Your task to perform on an android device: see creations saved in the google photos Image 0: 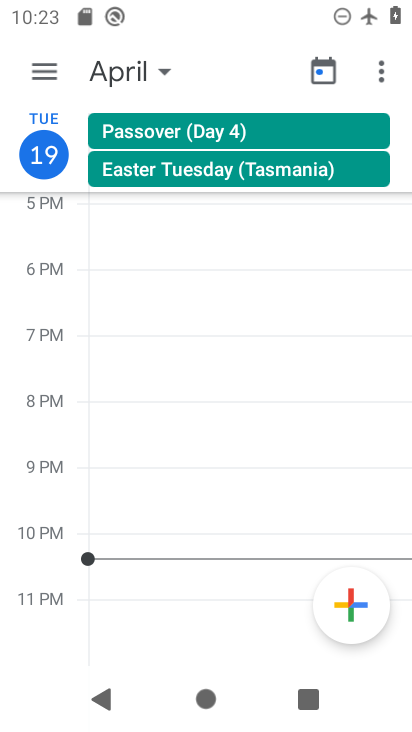
Step 0: press home button
Your task to perform on an android device: see creations saved in the google photos Image 1: 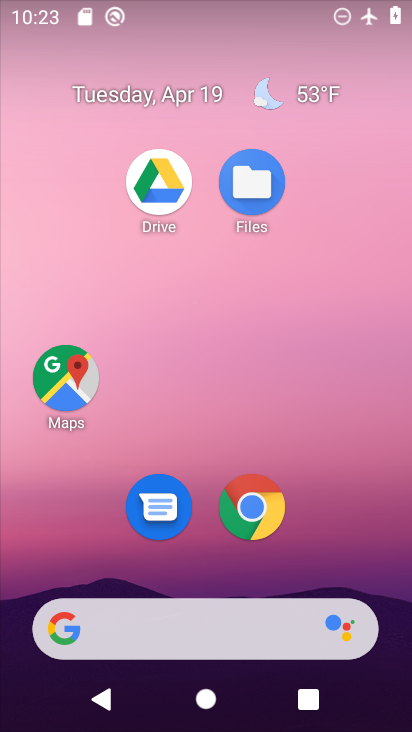
Step 1: drag from (360, 503) to (339, 115)
Your task to perform on an android device: see creations saved in the google photos Image 2: 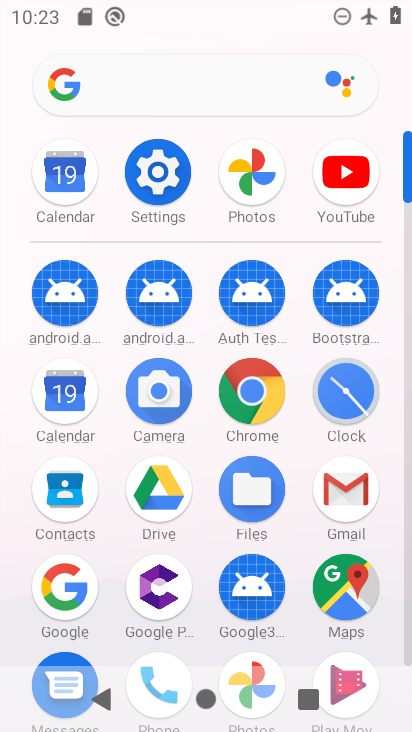
Step 2: click (269, 180)
Your task to perform on an android device: see creations saved in the google photos Image 3: 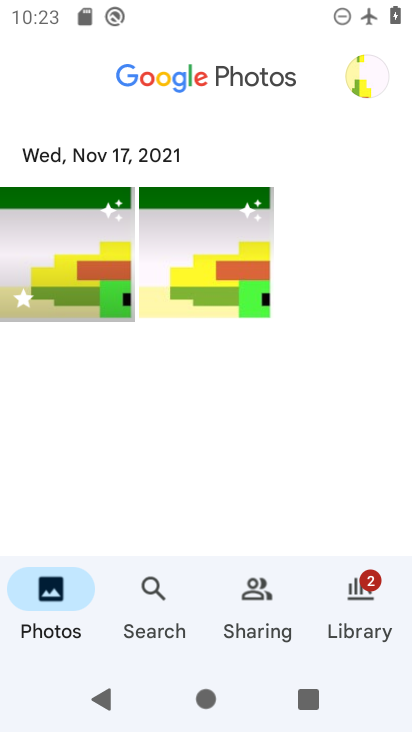
Step 3: click (156, 583)
Your task to perform on an android device: see creations saved in the google photos Image 4: 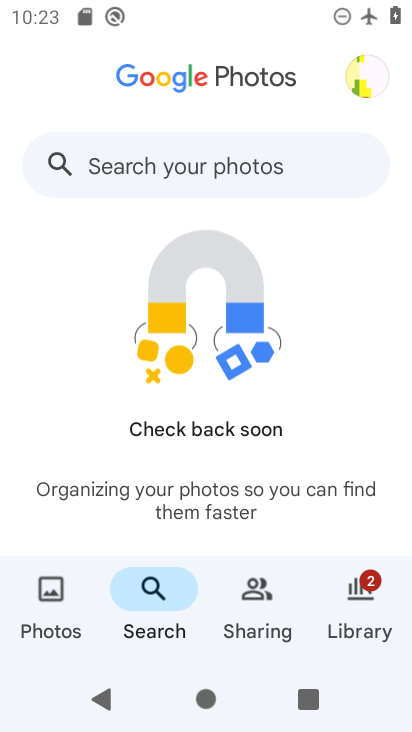
Step 4: drag from (314, 399) to (332, 150)
Your task to perform on an android device: see creations saved in the google photos Image 5: 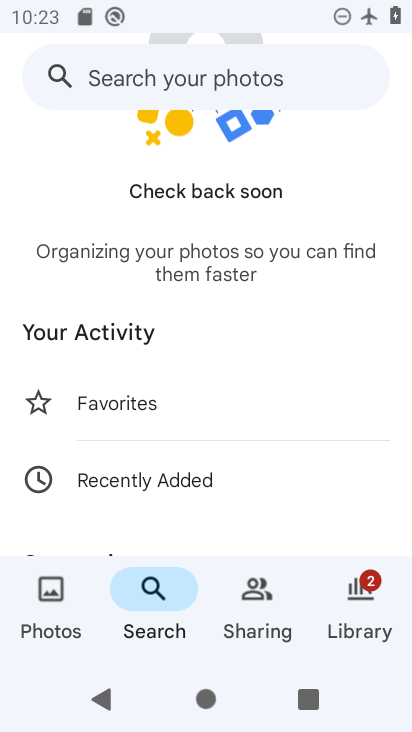
Step 5: drag from (194, 438) to (229, 163)
Your task to perform on an android device: see creations saved in the google photos Image 6: 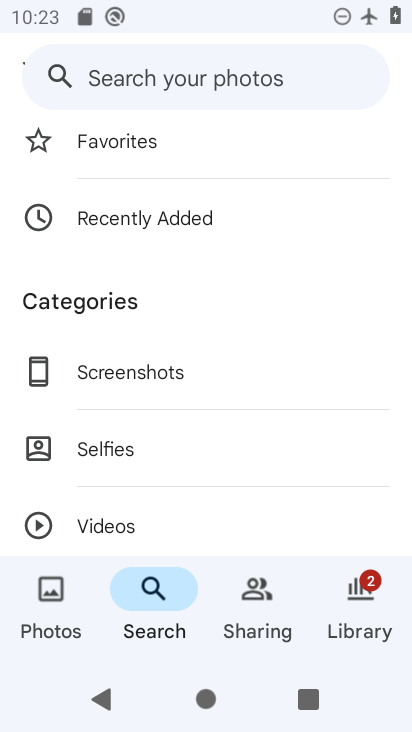
Step 6: drag from (185, 439) to (187, 169)
Your task to perform on an android device: see creations saved in the google photos Image 7: 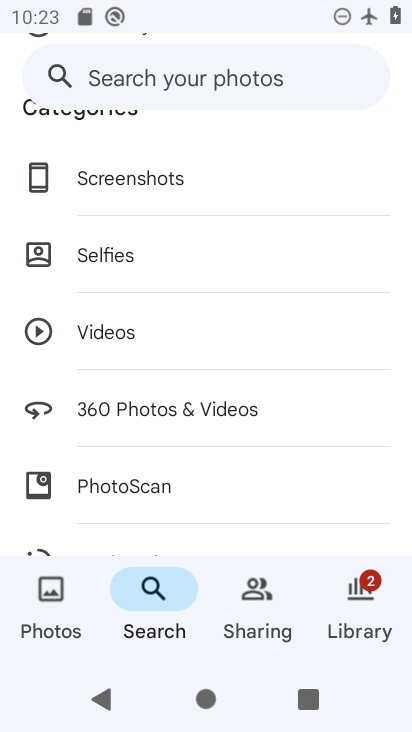
Step 7: drag from (188, 519) to (204, 169)
Your task to perform on an android device: see creations saved in the google photos Image 8: 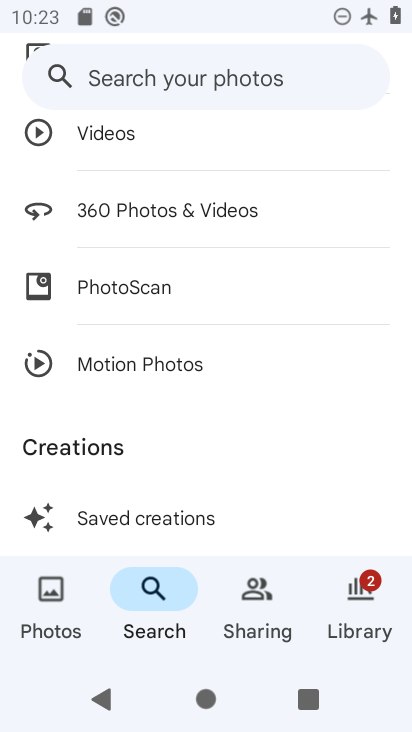
Step 8: click (165, 512)
Your task to perform on an android device: see creations saved in the google photos Image 9: 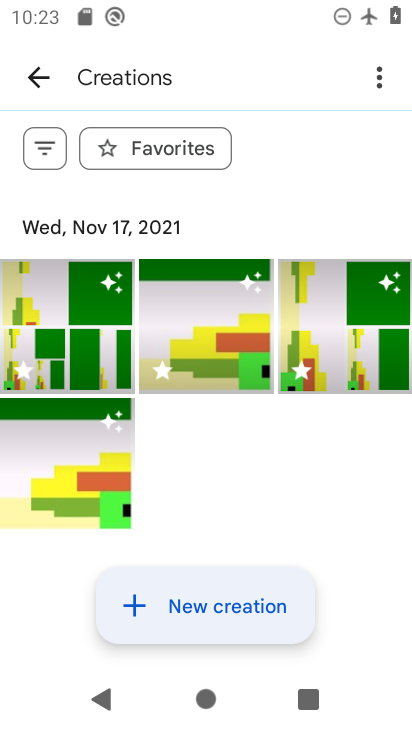
Step 9: task complete